Your task to perform on an android device: search for starred emails in the gmail app Image 0: 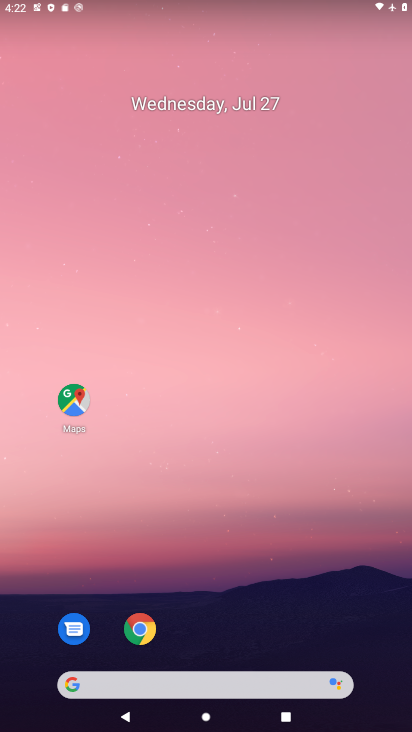
Step 0: drag from (187, 651) to (193, 76)
Your task to perform on an android device: search for starred emails in the gmail app Image 1: 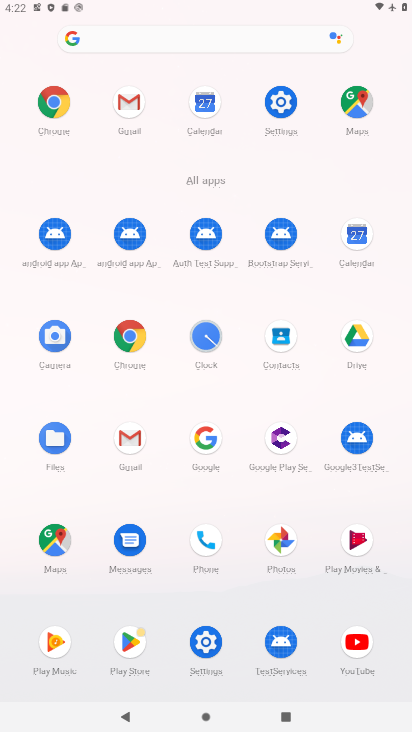
Step 1: click (135, 437)
Your task to perform on an android device: search for starred emails in the gmail app Image 2: 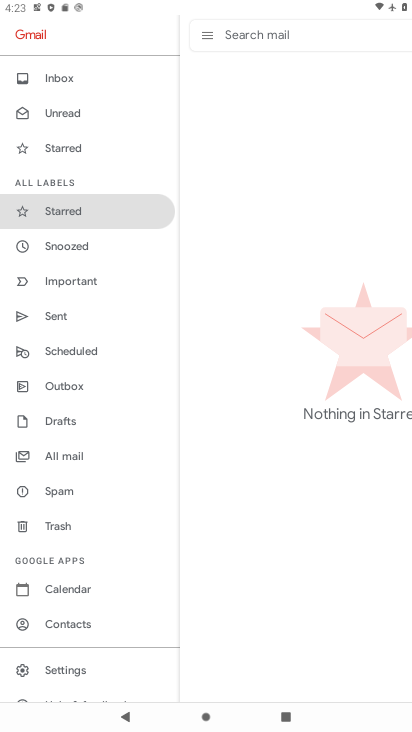
Step 2: click (84, 222)
Your task to perform on an android device: search for starred emails in the gmail app Image 3: 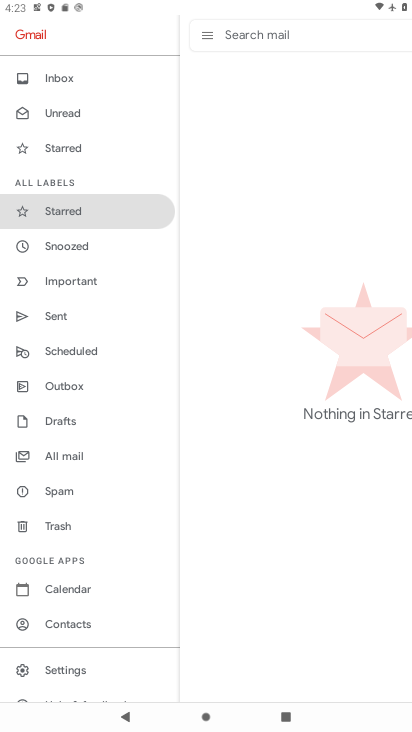
Step 3: task complete